Your task to perform on an android device: check battery use Image 0: 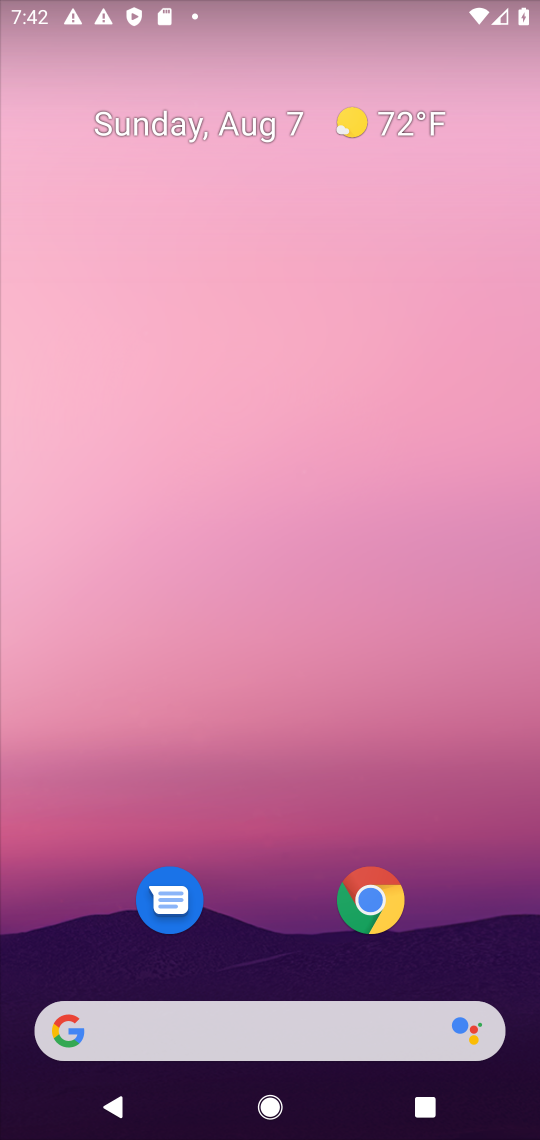
Step 0: drag from (206, 1027) to (412, 165)
Your task to perform on an android device: check battery use Image 1: 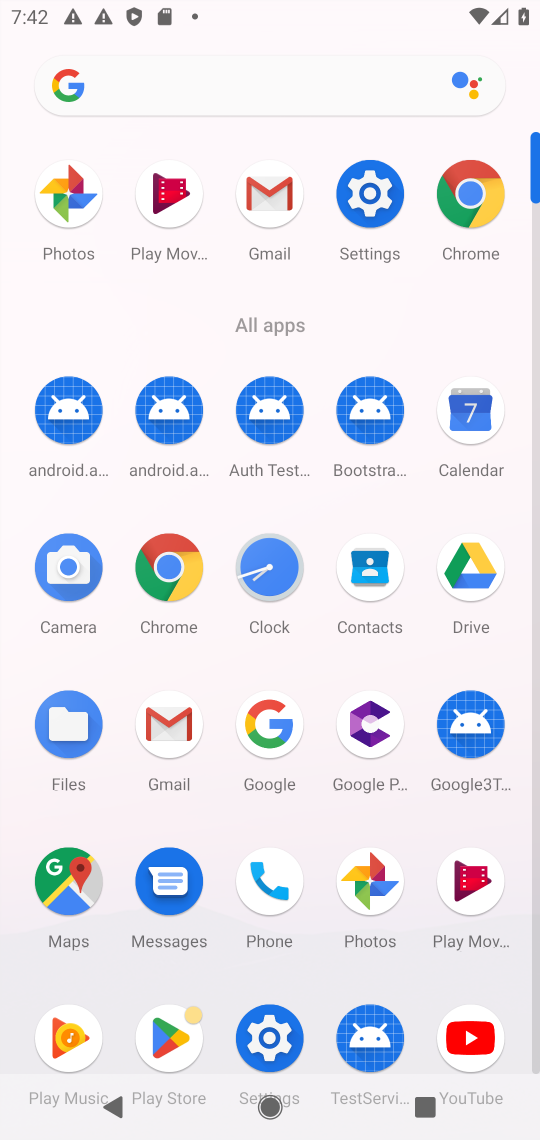
Step 1: click (376, 193)
Your task to perform on an android device: check battery use Image 2: 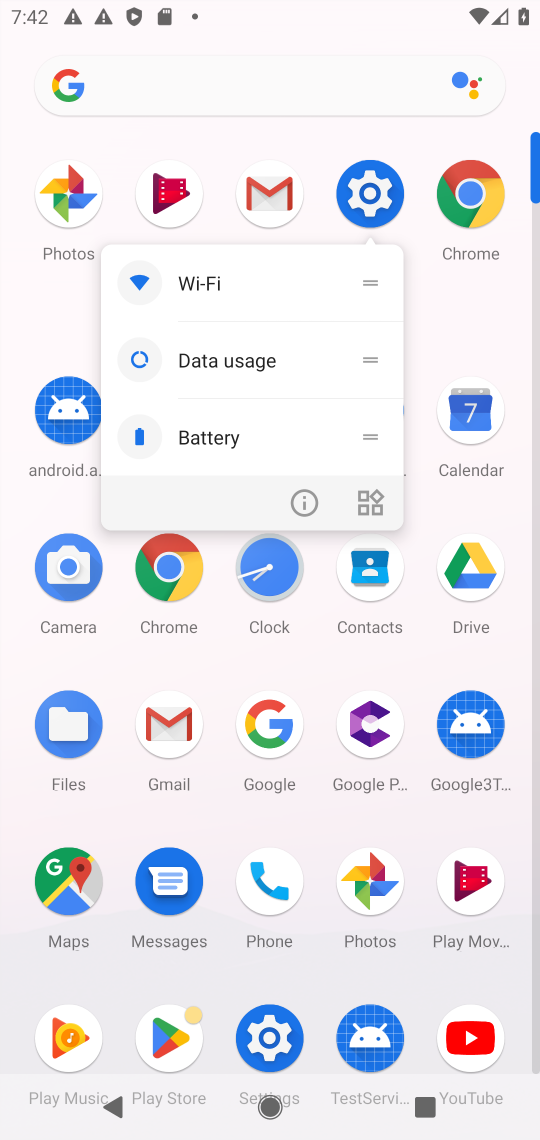
Step 2: click (372, 197)
Your task to perform on an android device: check battery use Image 3: 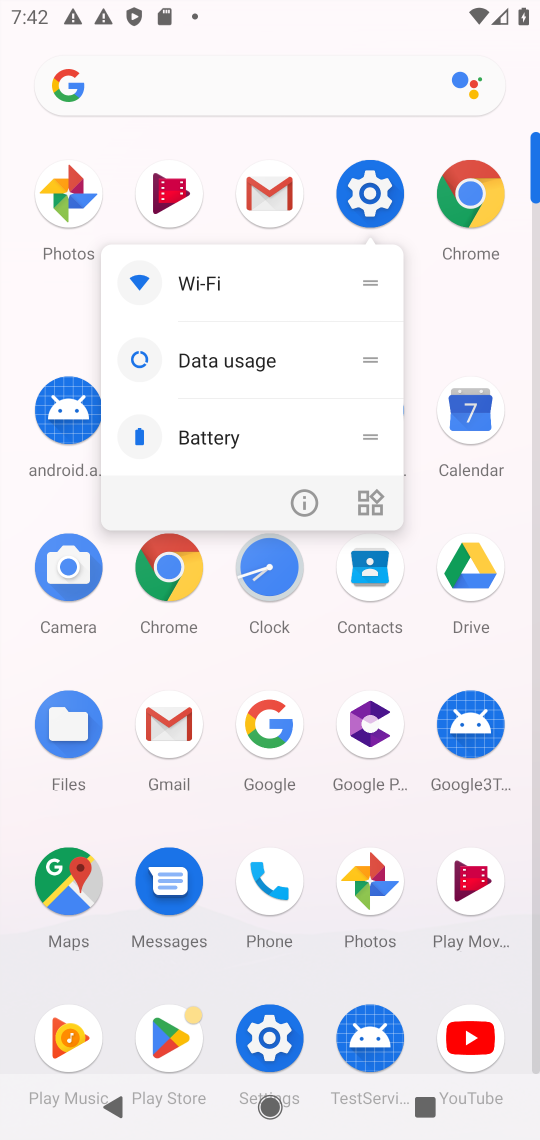
Step 3: click (372, 198)
Your task to perform on an android device: check battery use Image 4: 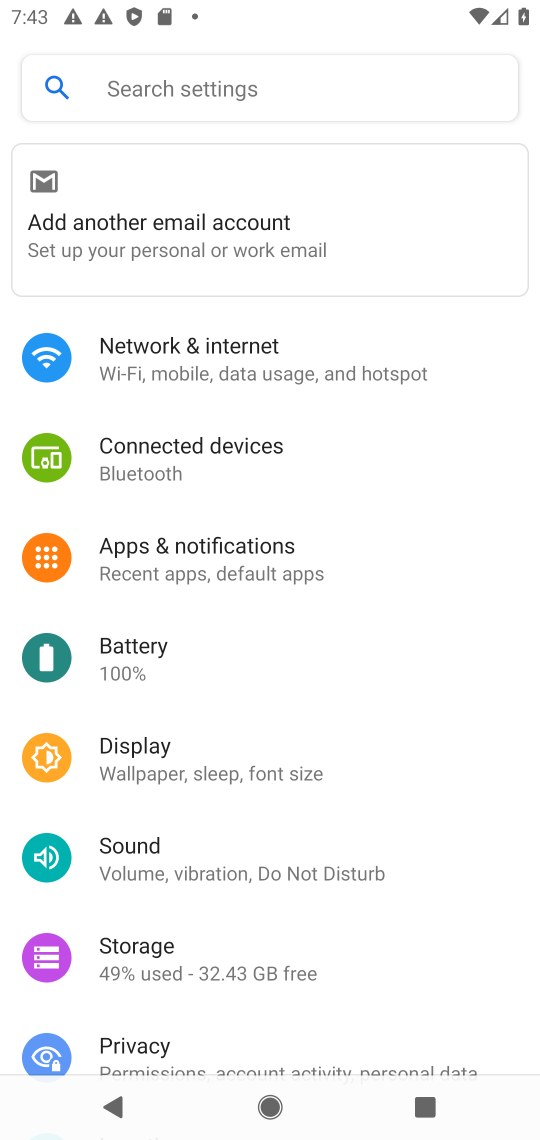
Step 4: click (153, 657)
Your task to perform on an android device: check battery use Image 5: 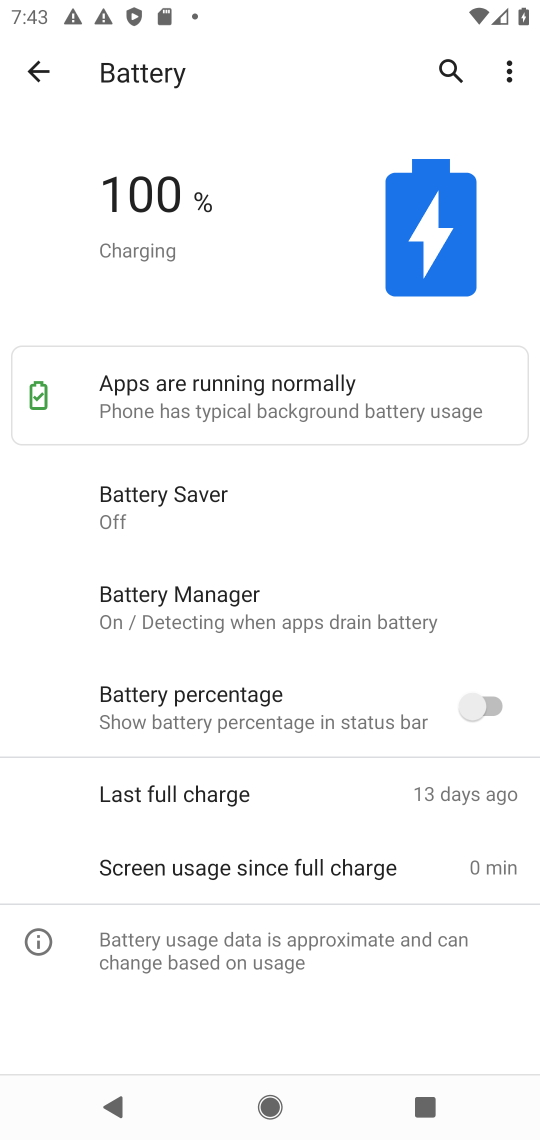
Step 5: drag from (255, 882) to (329, 476)
Your task to perform on an android device: check battery use Image 6: 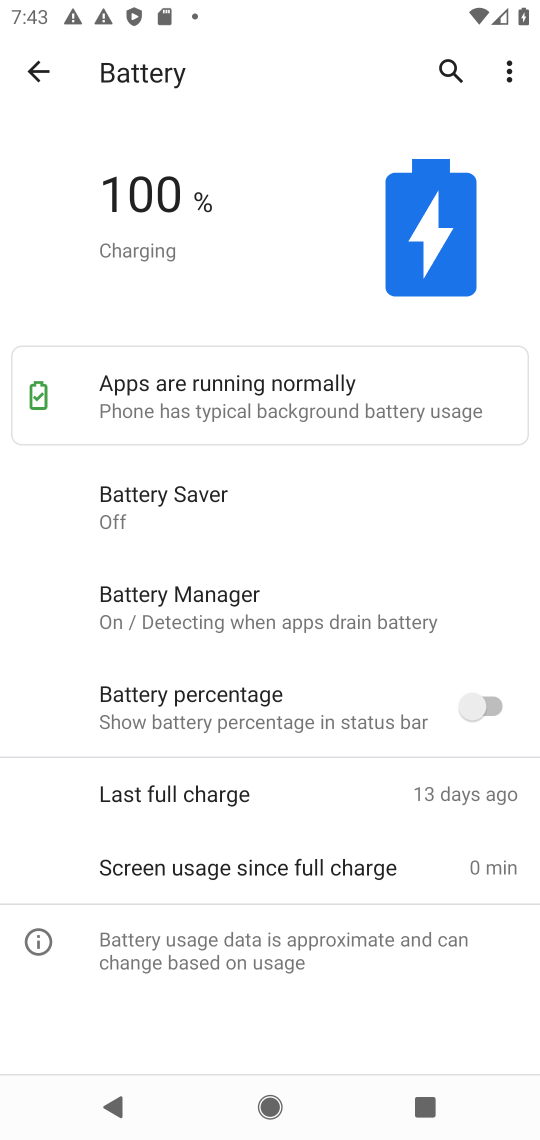
Step 6: drag from (322, 560) to (399, 187)
Your task to perform on an android device: check battery use Image 7: 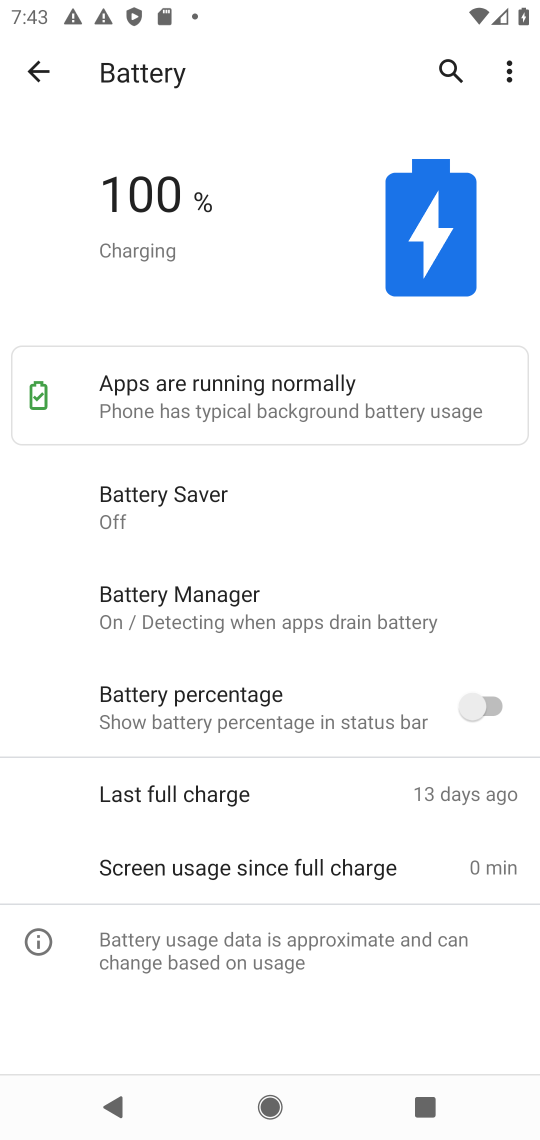
Step 7: click (505, 70)
Your task to perform on an android device: check battery use Image 8: 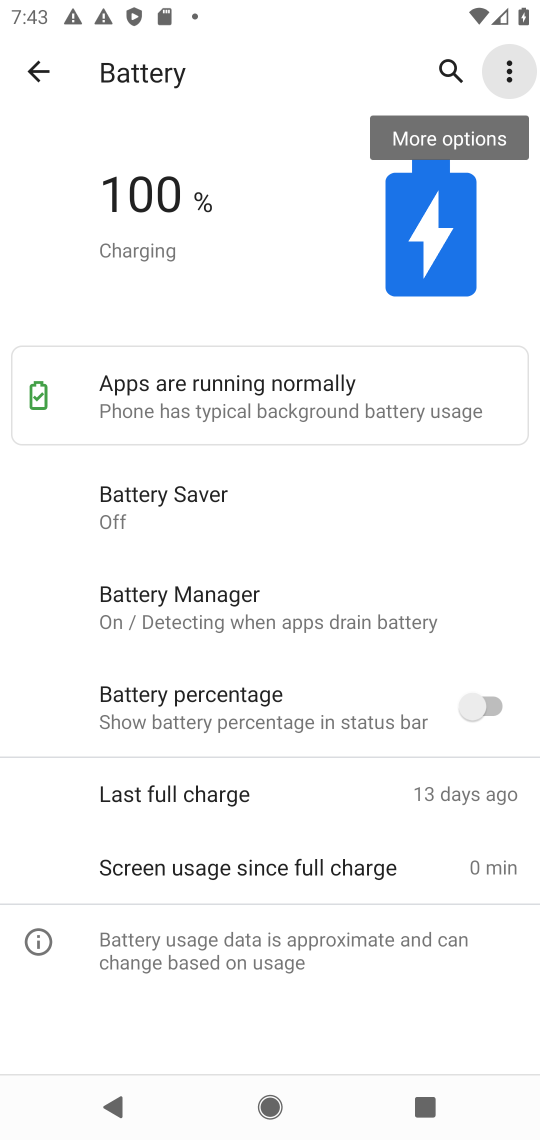
Step 8: click (505, 72)
Your task to perform on an android device: check battery use Image 9: 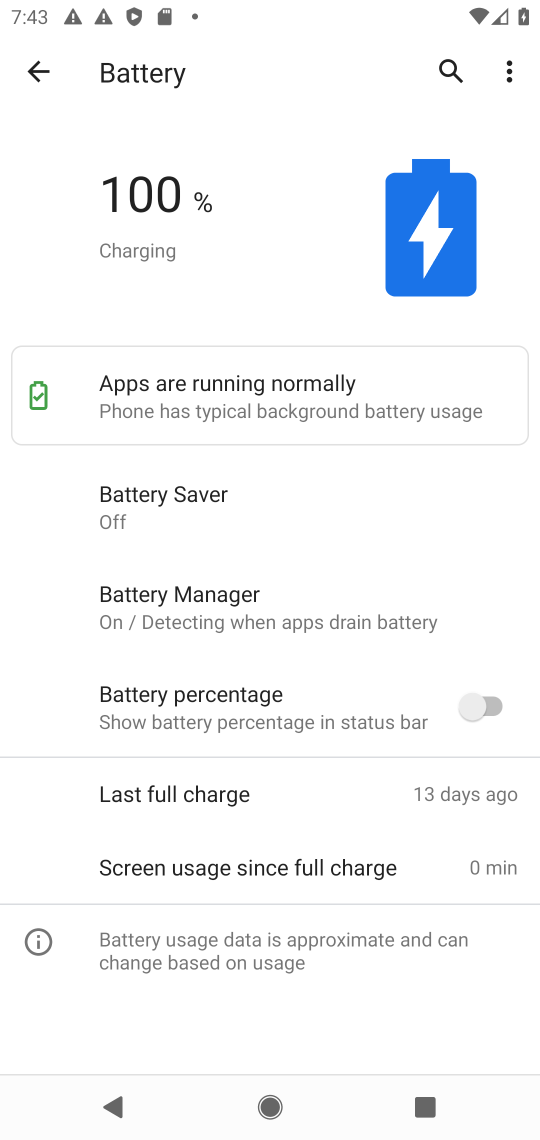
Step 9: click (504, 72)
Your task to perform on an android device: check battery use Image 10: 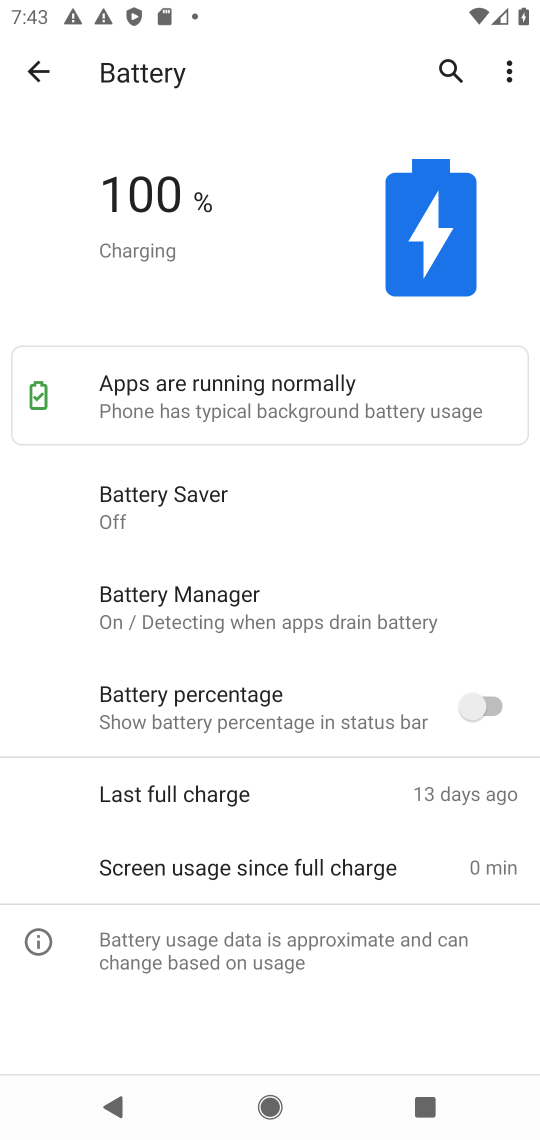
Step 10: click (507, 67)
Your task to perform on an android device: check battery use Image 11: 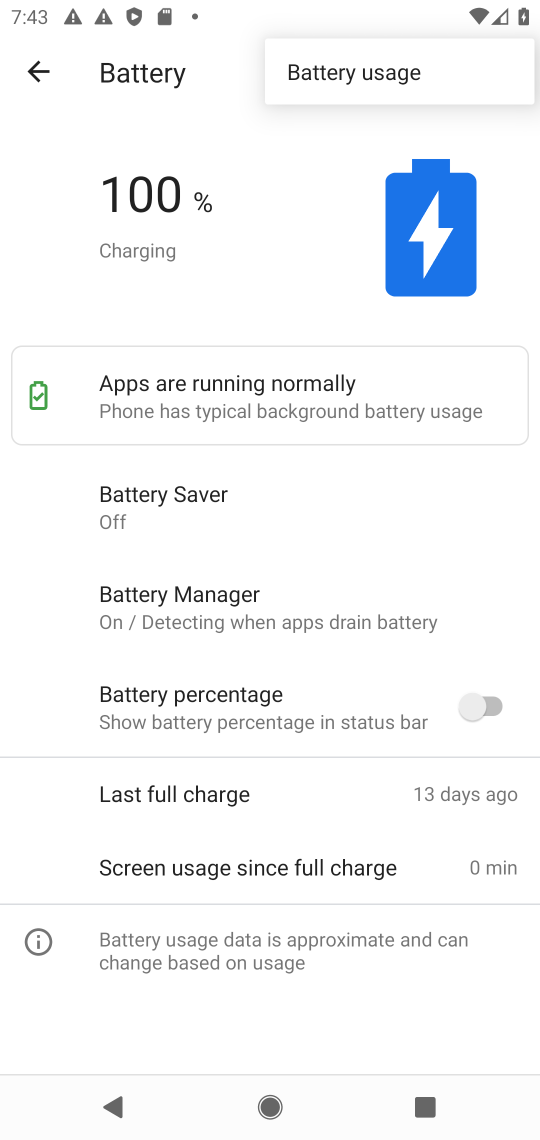
Step 11: click (370, 65)
Your task to perform on an android device: check battery use Image 12: 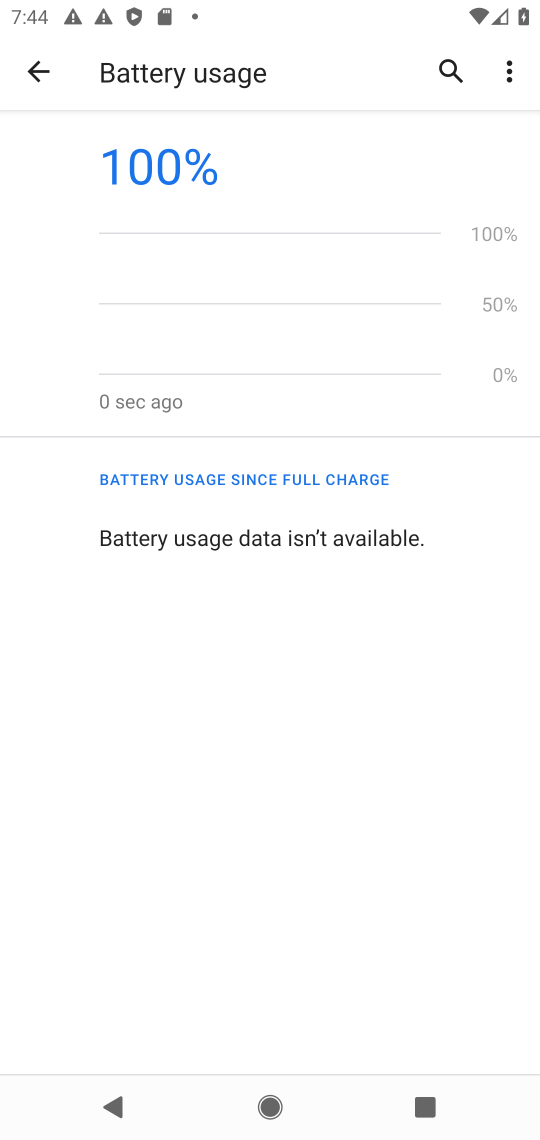
Step 12: task complete